Your task to perform on an android device: Open sound settings Image 0: 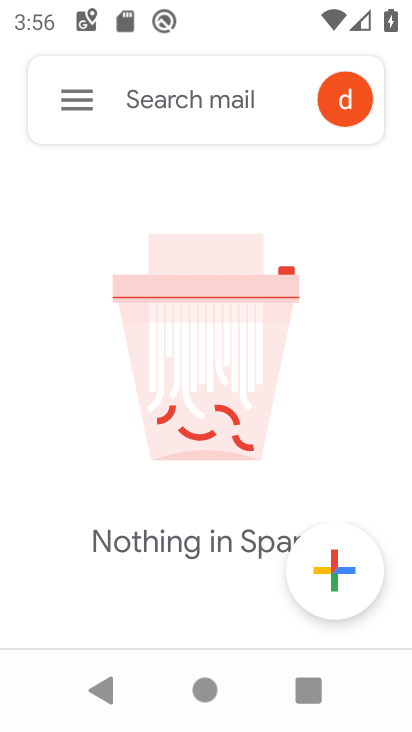
Step 0: press home button
Your task to perform on an android device: Open sound settings Image 1: 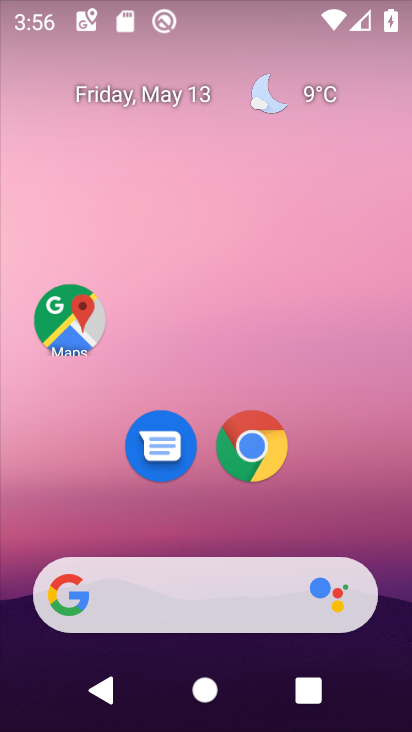
Step 1: drag from (167, 537) to (167, 38)
Your task to perform on an android device: Open sound settings Image 2: 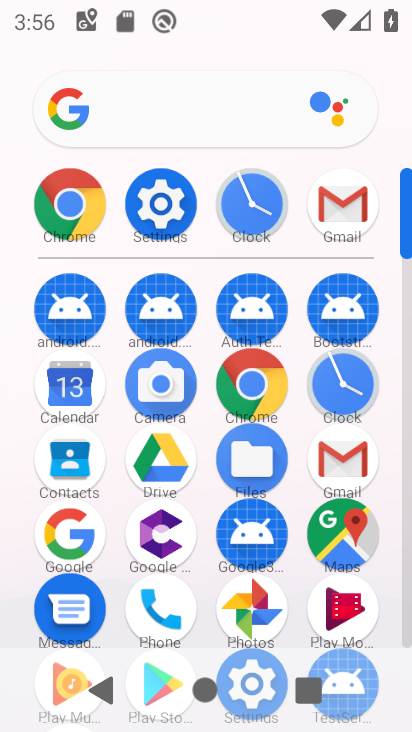
Step 2: click (177, 197)
Your task to perform on an android device: Open sound settings Image 3: 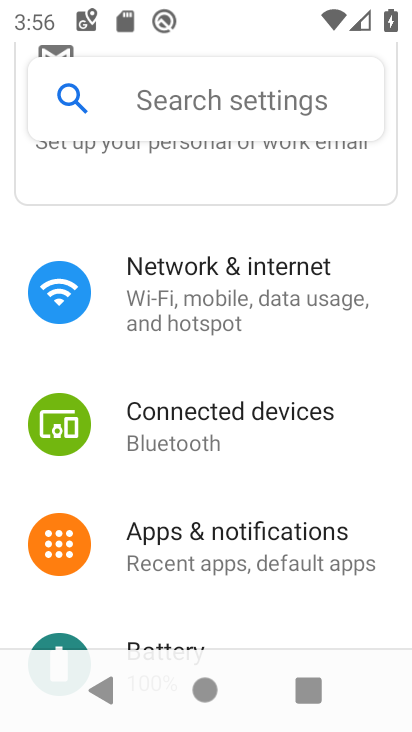
Step 3: drag from (174, 565) to (153, 216)
Your task to perform on an android device: Open sound settings Image 4: 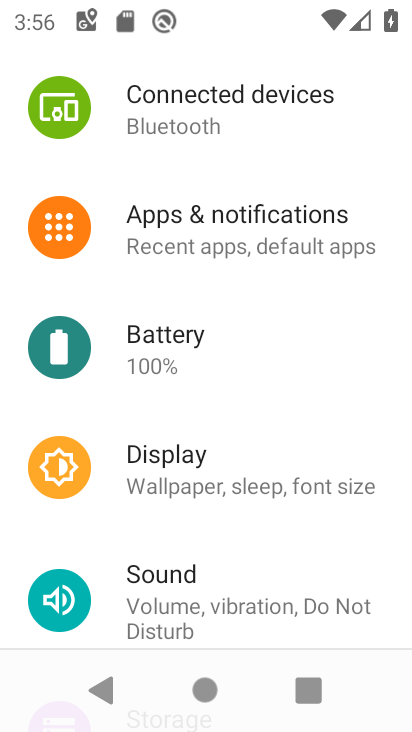
Step 4: click (192, 605)
Your task to perform on an android device: Open sound settings Image 5: 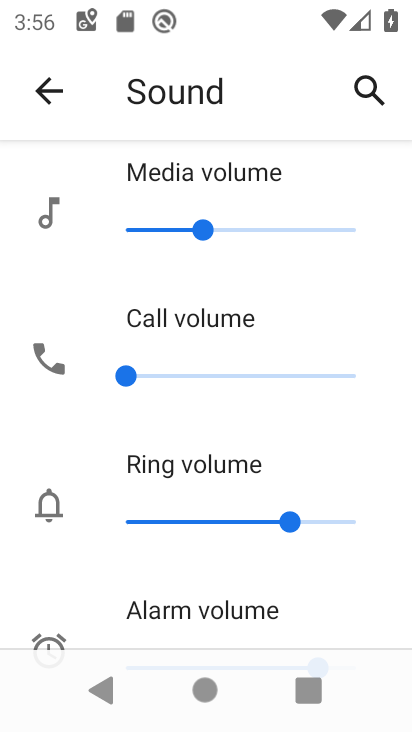
Step 5: task complete